Your task to perform on an android device: What's on my calendar tomorrow? Image 0: 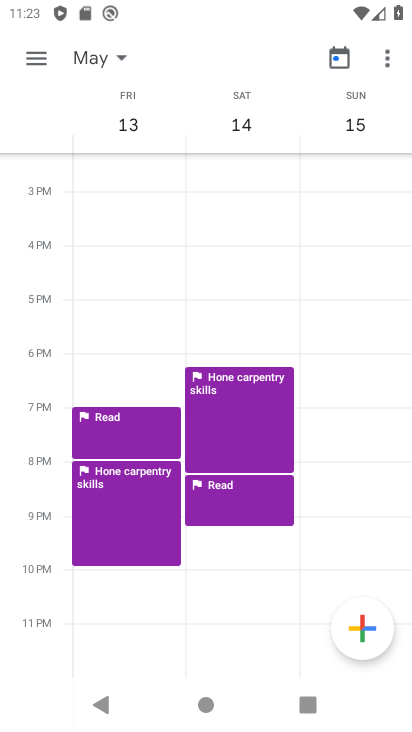
Step 0: press home button
Your task to perform on an android device: What's on my calendar tomorrow? Image 1: 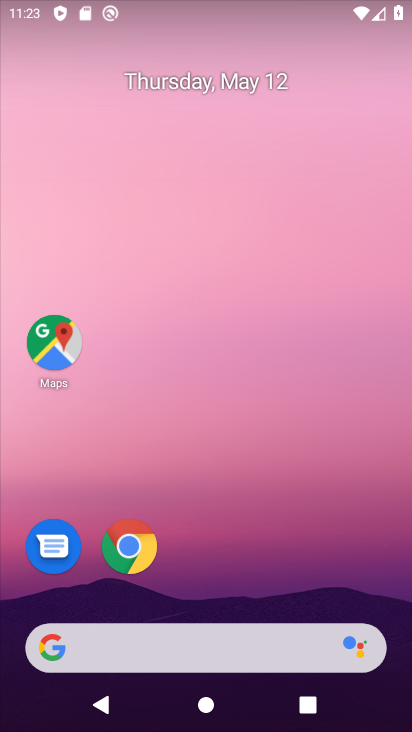
Step 1: drag from (238, 726) to (231, 165)
Your task to perform on an android device: What's on my calendar tomorrow? Image 2: 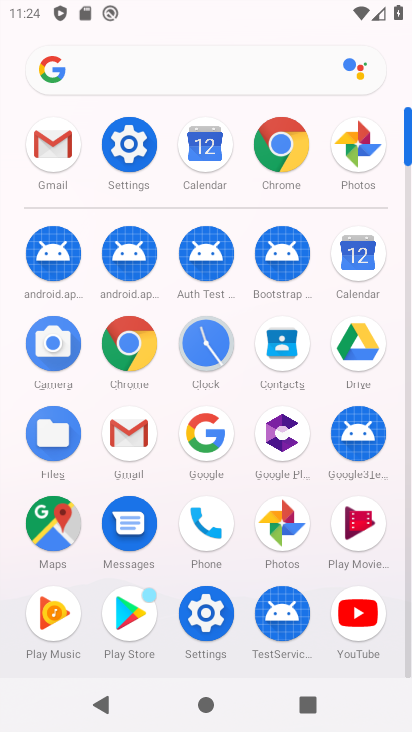
Step 2: click (354, 249)
Your task to perform on an android device: What's on my calendar tomorrow? Image 3: 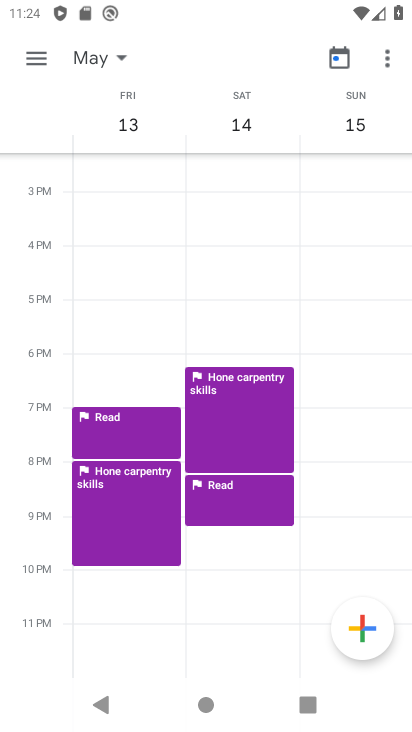
Step 3: click (32, 59)
Your task to perform on an android device: What's on my calendar tomorrow? Image 4: 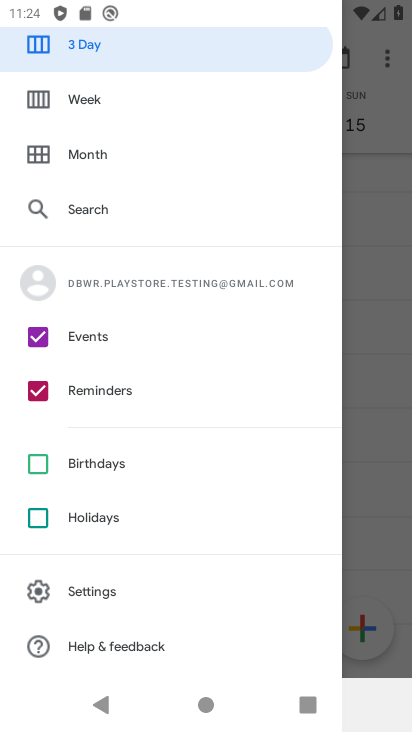
Step 4: drag from (217, 135) to (201, 548)
Your task to perform on an android device: What's on my calendar tomorrow? Image 5: 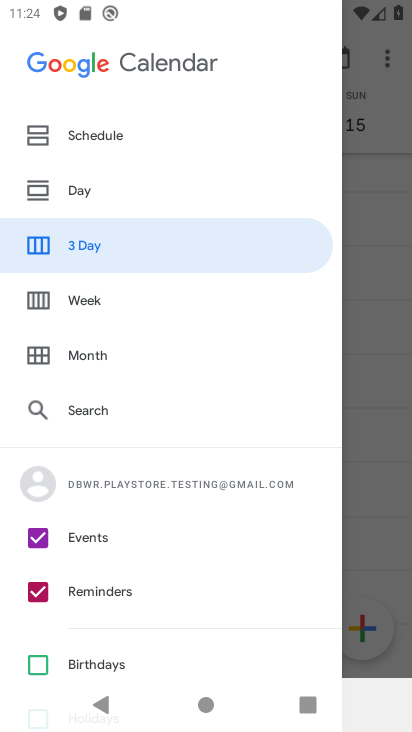
Step 5: click (110, 139)
Your task to perform on an android device: What's on my calendar tomorrow? Image 6: 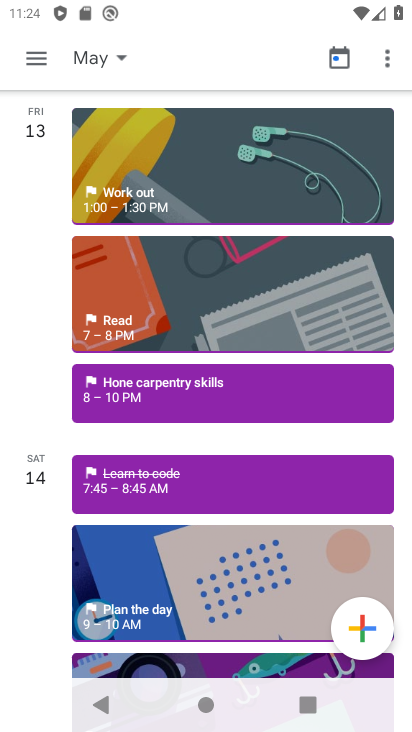
Step 6: click (95, 52)
Your task to perform on an android device: What's on my calendar tomorrow? Image 7: 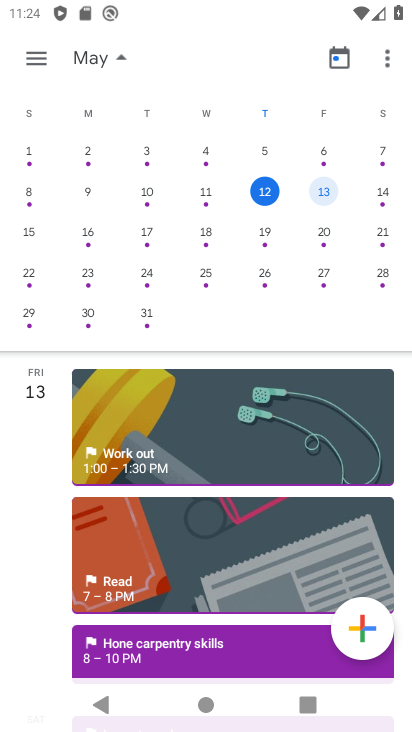
Step 7: click (325, 191)
Your task to perform on an android device: What's on my calendar tomorrow? Image 8: 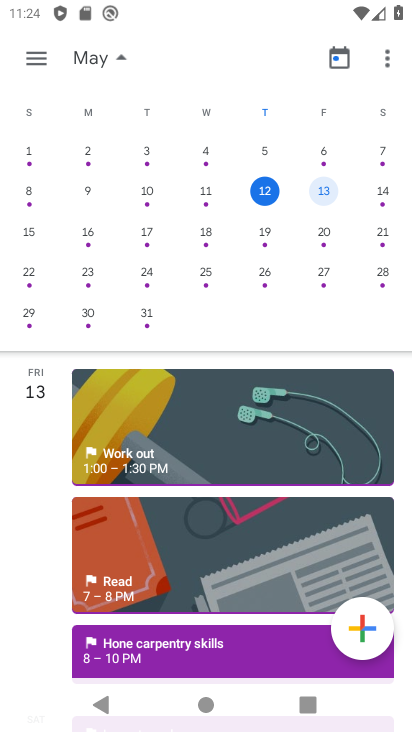
Step 8: task complete